Your task to perform on an android device: empty trash in google photos Image 0: 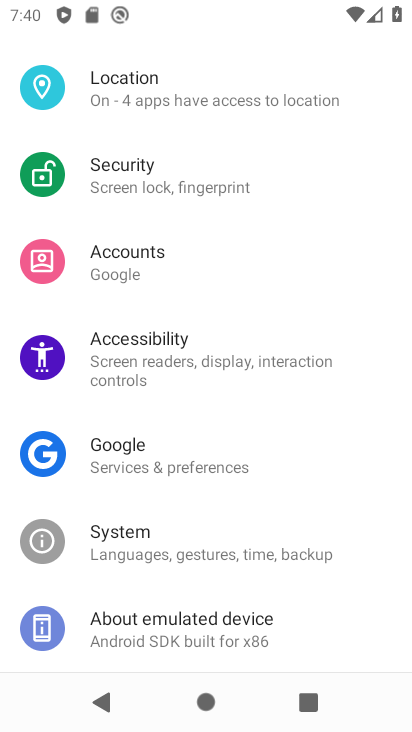
Step 0: press home button
Your task to perform on an android device: empty trash in google photos Image 1: 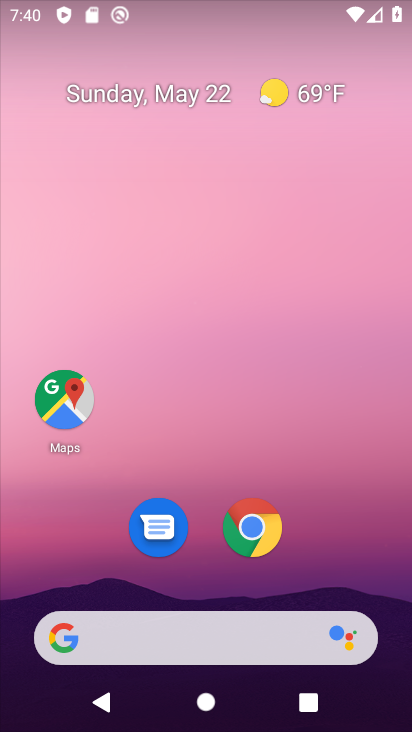
Step 1: drag from (211, 590) to (208, 64)
Your task to perform on an android device: empty trash in google photos Image 2: 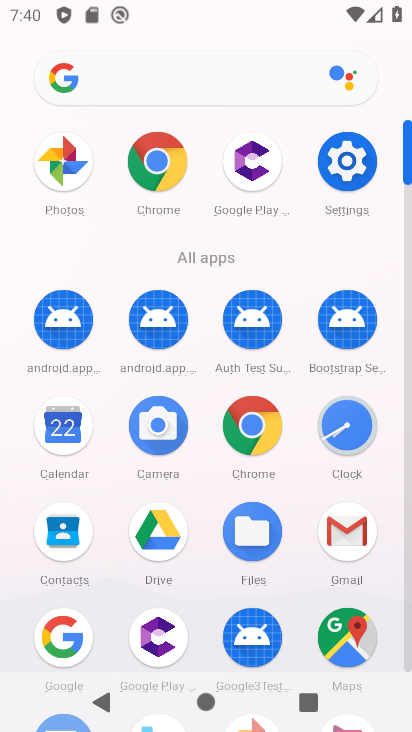
Step 2: drag from (198, 601) to (204, 105)
Your task to perform on an android device: empty trash in google photos Image 3: 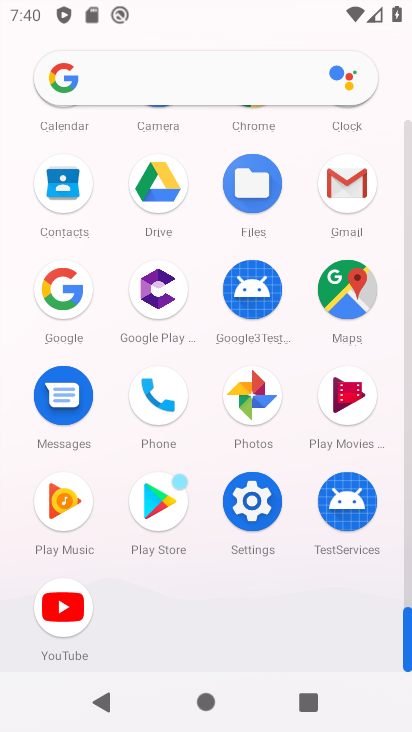
Step 3: click (253, 389)
Your task to perform on an android device: empty trash in google photos Image 4: 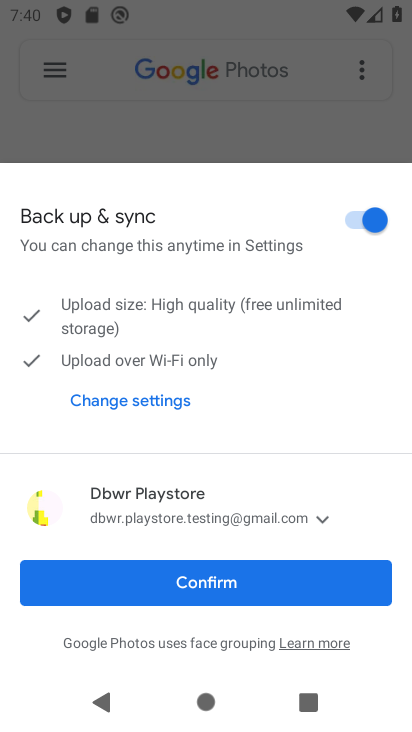
Step 4: click (213, 577)
Your task to perform on an android device: empty trash in google photos Image 5: 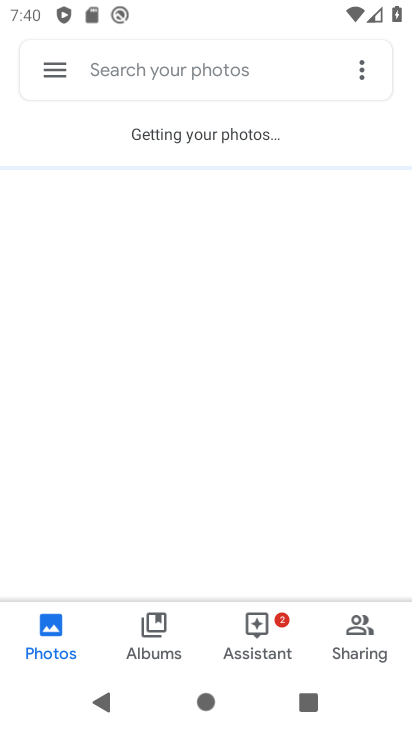
Step 5: click (361, 66)
Your task to perform on an android device: empty trash in google photos Image 6: 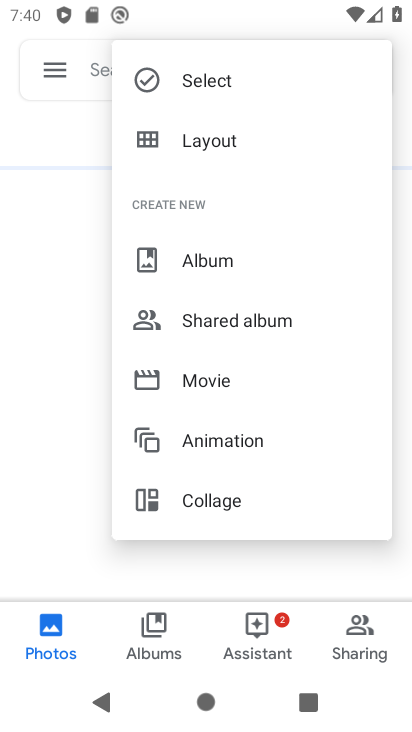
Step 6: click (54, 408)
Your task to perform on an android device: empty trash in google photos Image 7: 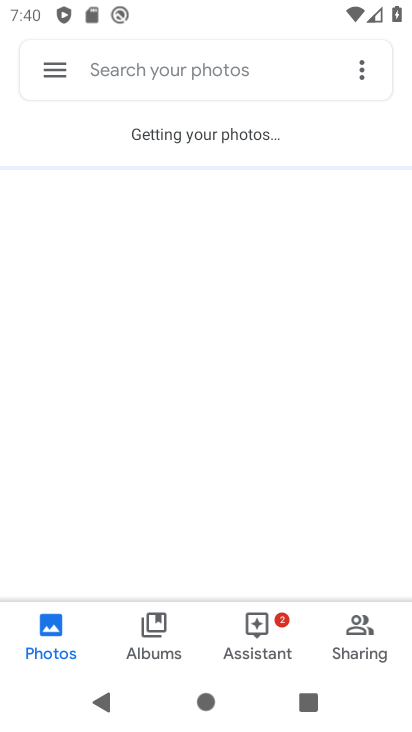
Step 7: click (56, 66)
Your task to perform on an android device: empty trash in google photos Image 8: 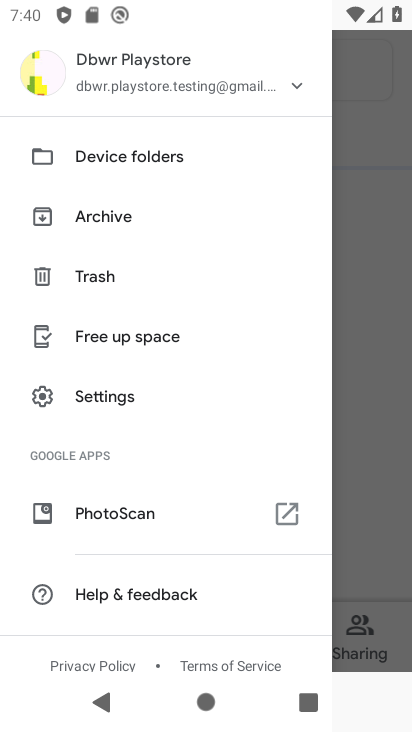
Step 8: click (116, 268)
Your task to perform on an android device: empty trash in google photos Image 9: 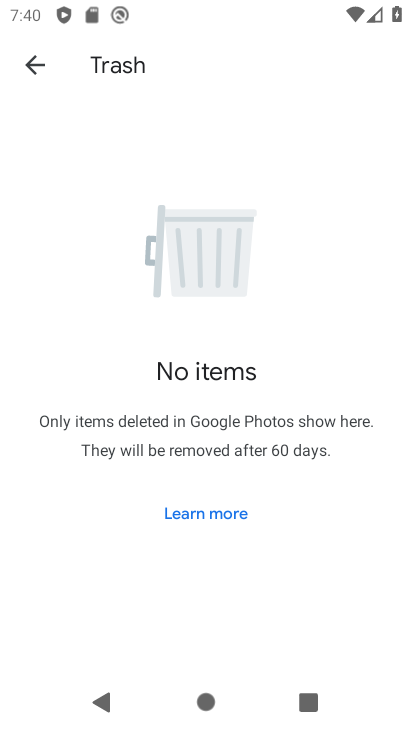
Step 9: task complete